Your task to perform on an android device: Show me popular games on the Play Store Image 0: 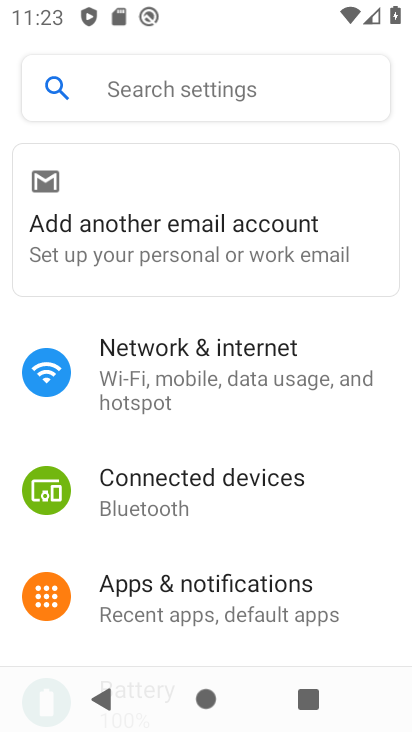
Step 0: press home button
Your task to perform on an android device: Show me popular games on the Play Store Image 1: 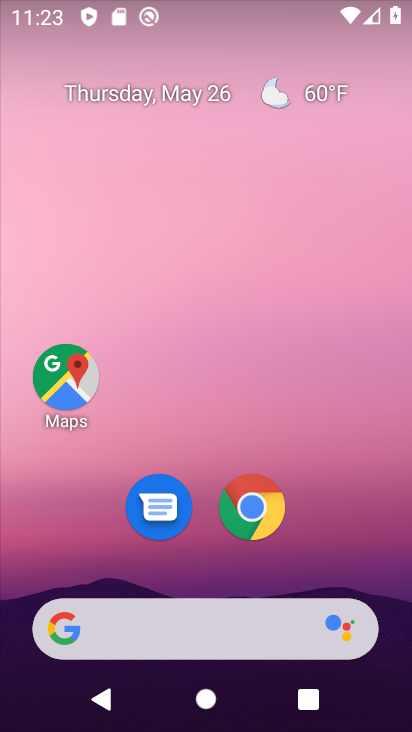
Step 1: drag from (336, 518) to (326, 204)
Your task to perform on an android device: Show me popular games on the Play Store Image 2: 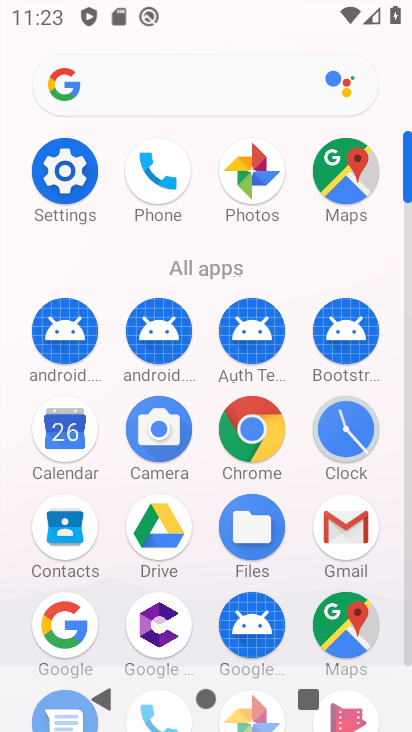
Step 2: drag from (205, 275) to (194, 102)
Your task to perform on an android device: Show me popular games on the Play Store Image 3: 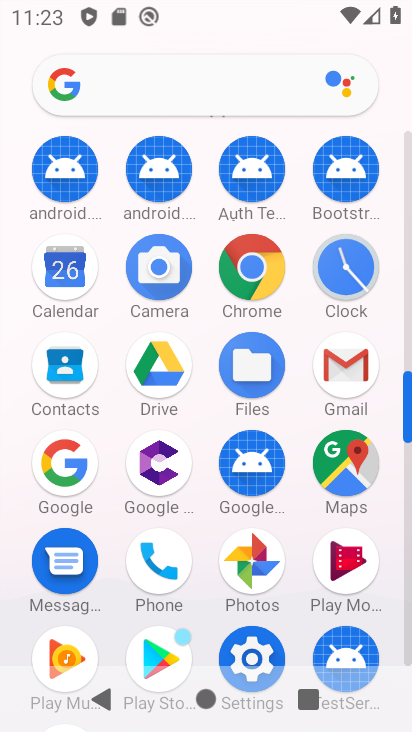
Step 3: click (174, 644)
Your task to perform on an android device: Show me popular games on the Play Store Image 4: 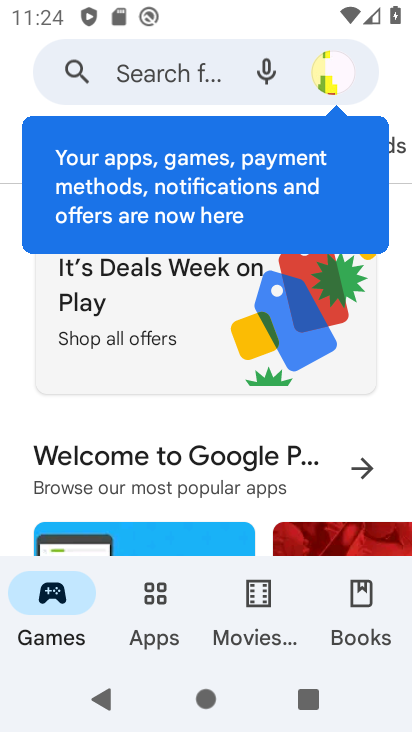
Step 4: click (174, 644)
Your task to perform on an android device: Show me popular games on the Play Store Image 5: 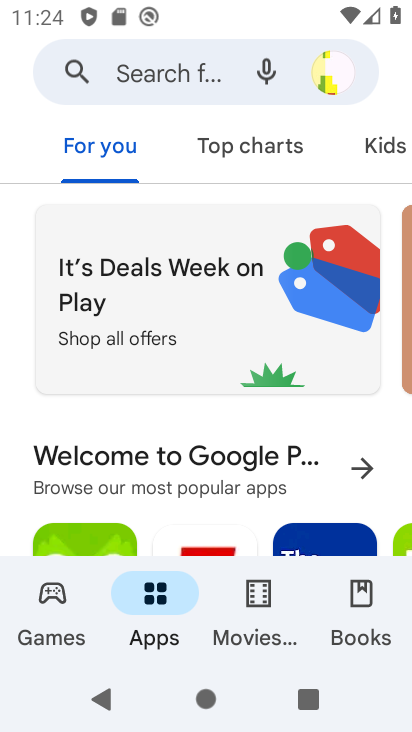
Step 5: click (174, 644)
Your task to perform on an android device: Show me popular games on the Play Store Image 6: 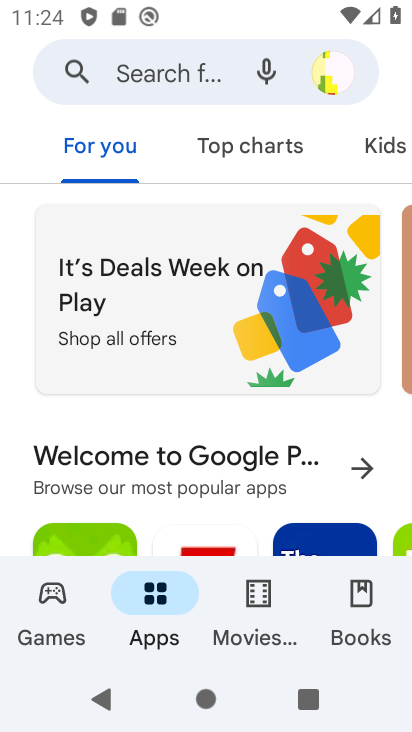
Step 6: click (213, 151)
Your task to perform on an android device: Show me popular games on the Play Store Image 7: 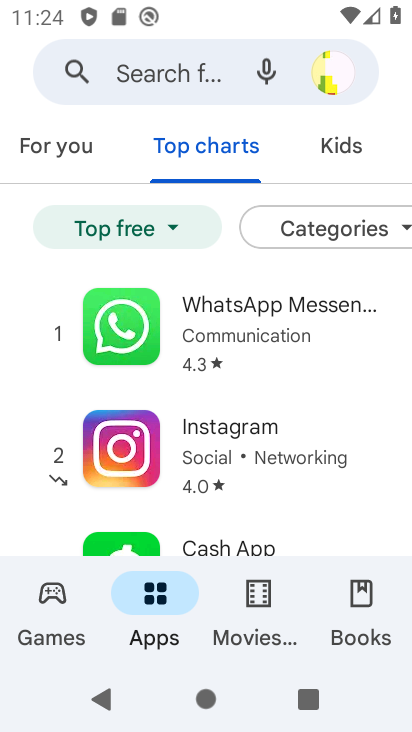
Step 7: task complete